Your task to perform on an android device: When is my next meeting? Image 0: 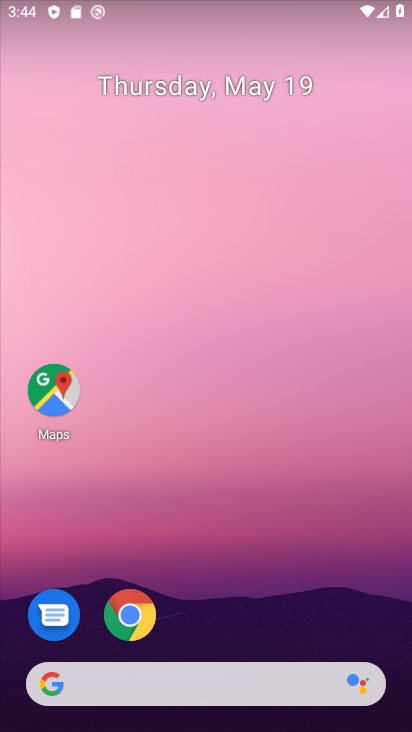
Step 0: drag from (219, 633) to (219, 13)
Your task to perform on an android device: When is my next meeting? Image 1: 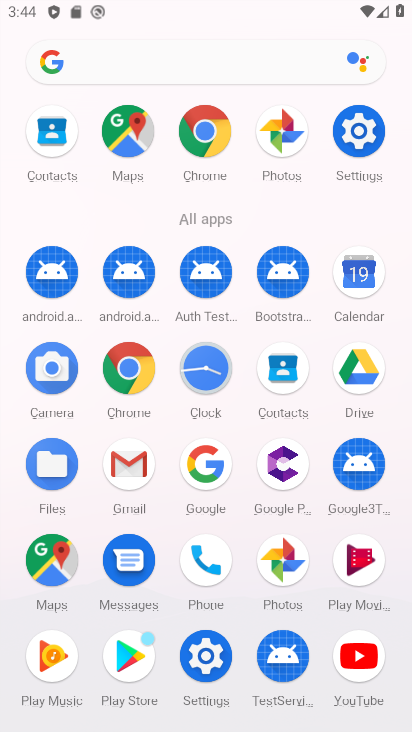
Step 1: click (361, 284)
Your task to perform on an android device: When is my next meeting? Image 2: 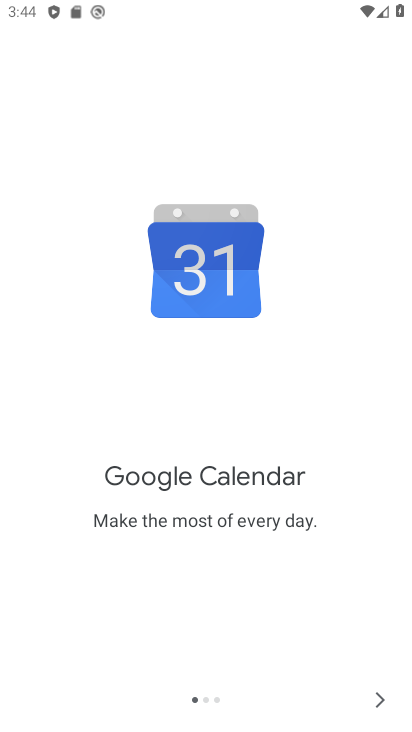
Step 2: click (383, 700)
Your task to perform on an android device: When is my next meeting? Image 3: 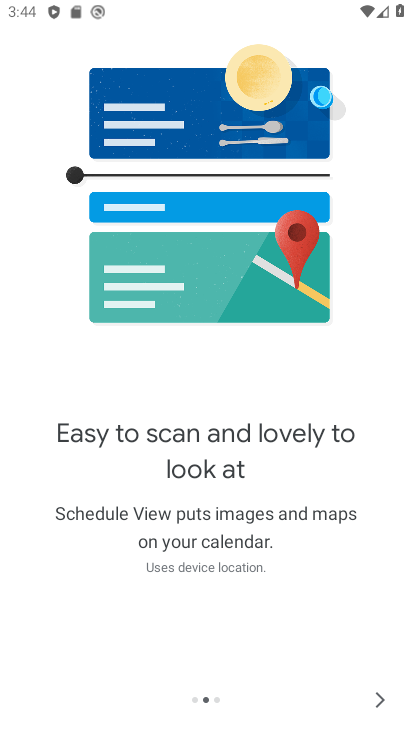
Step 3: click (383, 700)
Your task to perform on an android device: When is my next meeting? Image 4: 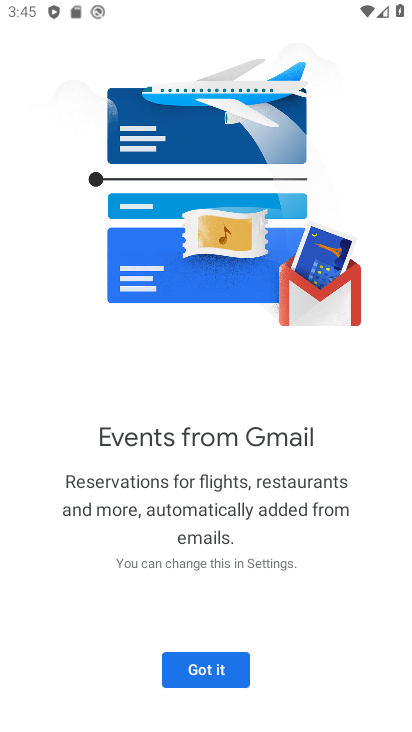
Step 4: click (206, 685)
Your task to perform on an android device: When is my next meeting? Image 5: 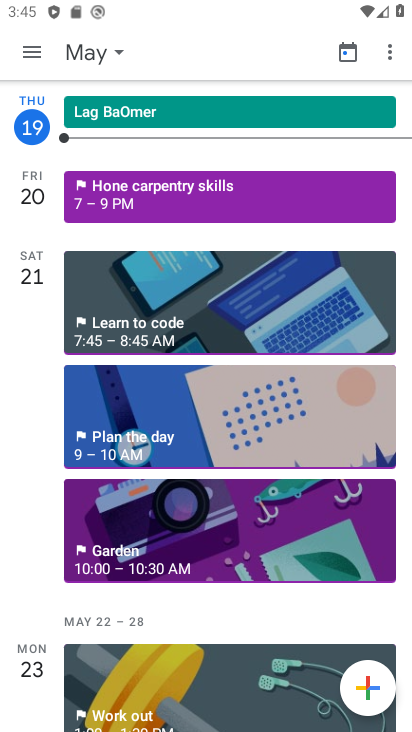
Step 5: click (172, 204)
Your task to perform on an android device: When is my next meeting? Image 6: 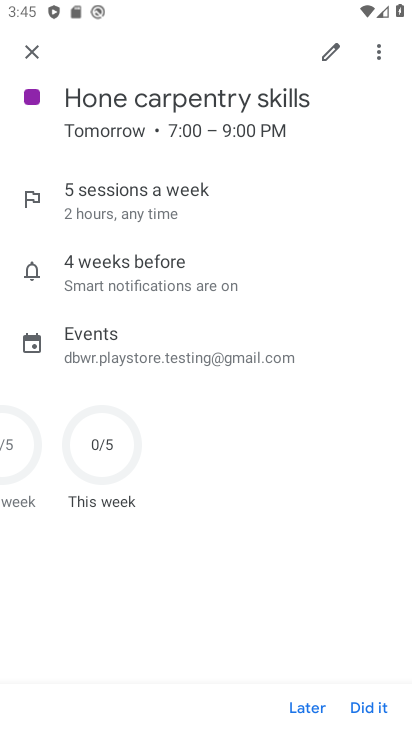
Step 6: task complete